Your task to perform on an android device: Open calendar and show me the fourth week of next month Image 0: 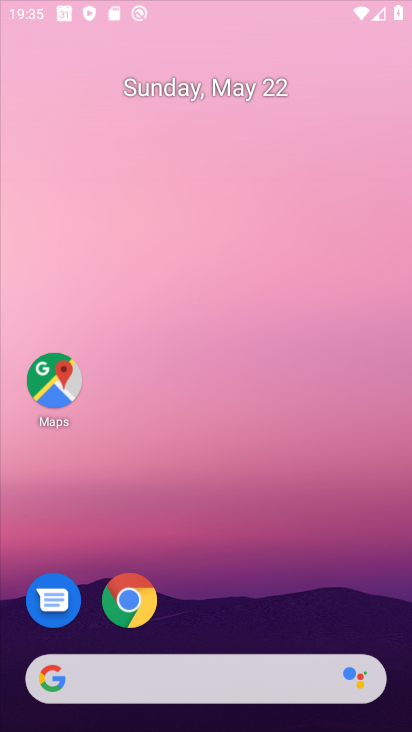
Step 0: click (216, 28)
Your task to perform on an android device: Open calendar and show me the fourth week of next month Image 1: 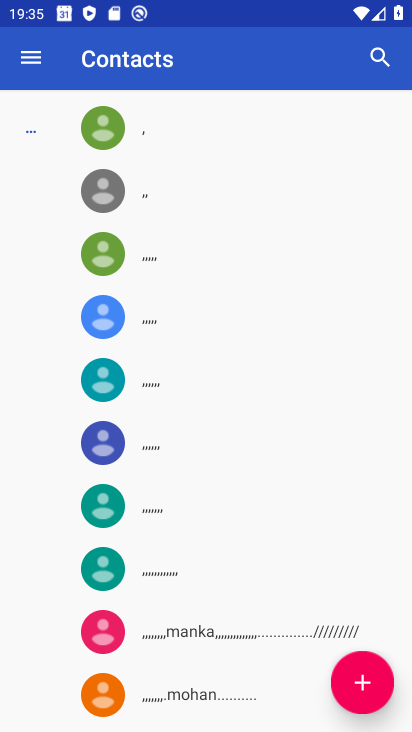
Step 1: press back button
Your task to perform on an android device: Open calendar and show me the fourth week of next month Image 2: 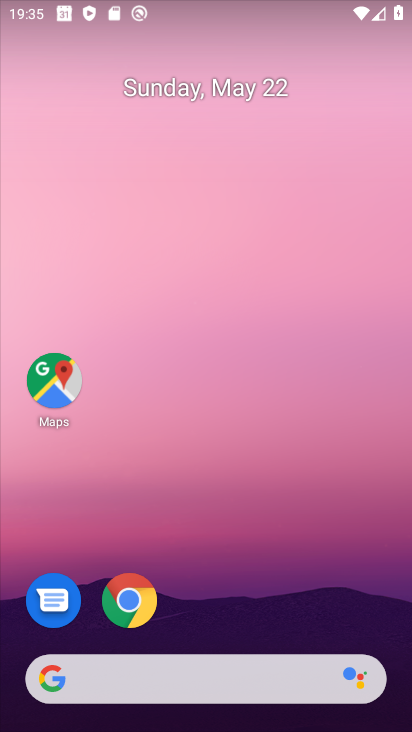
Step 2: drag from (235, 612) to (235, 22)
Your task to perform on an android device: Open calendar and show me the fourth week of next month Image 3: 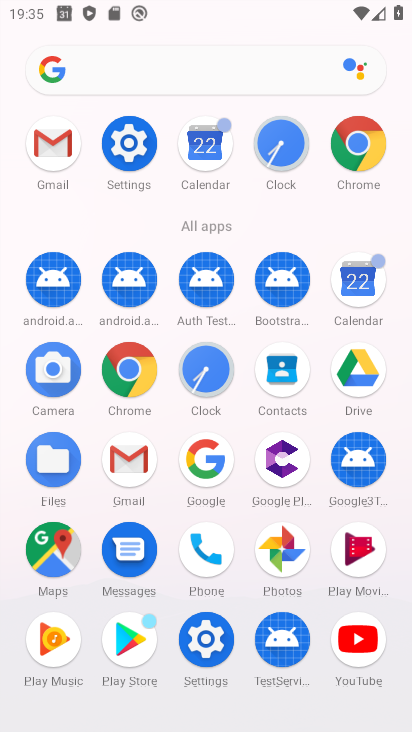
Step 3: click (364, 278)
Your task to perform on an android device: Open calendar and show me the fourth week of next month Image 4: 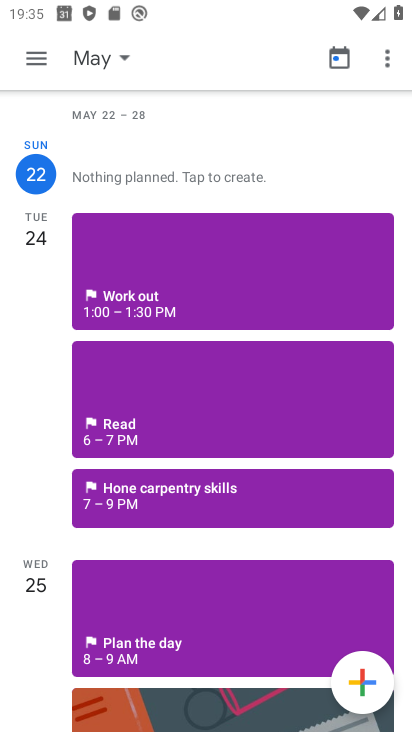
Step 4: click (100, 64)
Your task to perform on an android device: Open calendar and show me the fourth week of next month Image 5: 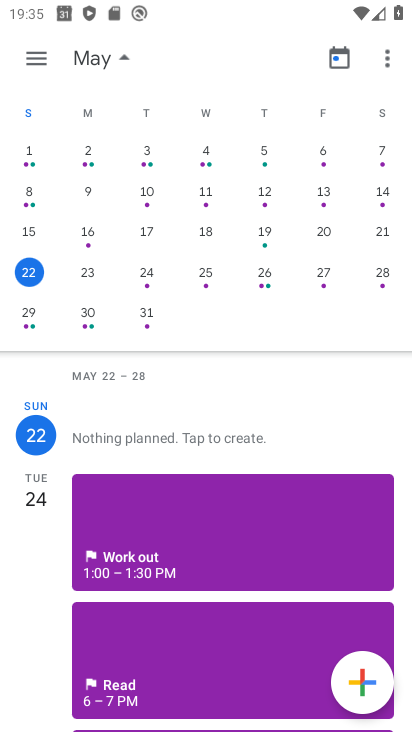
Step 5: drag from (375, 204) to (0, 125)
Your task to perform on an android device: Open calendar and show me the fourth week of next month Image 6: 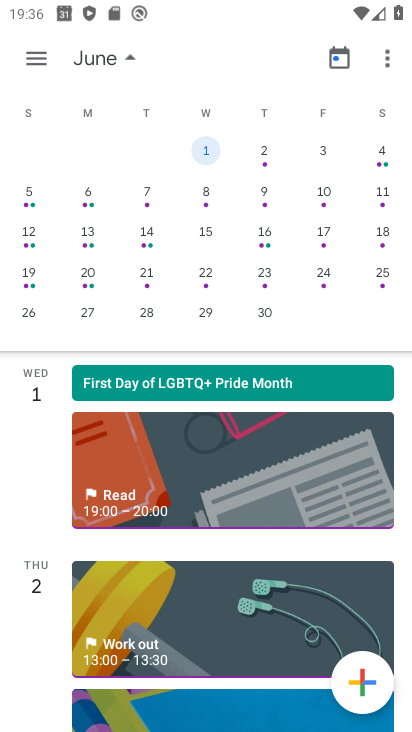
Step 6: click (28, 282)
Your task to perform on an android device: Open calendar and show me the fourth week of next month Image 7: 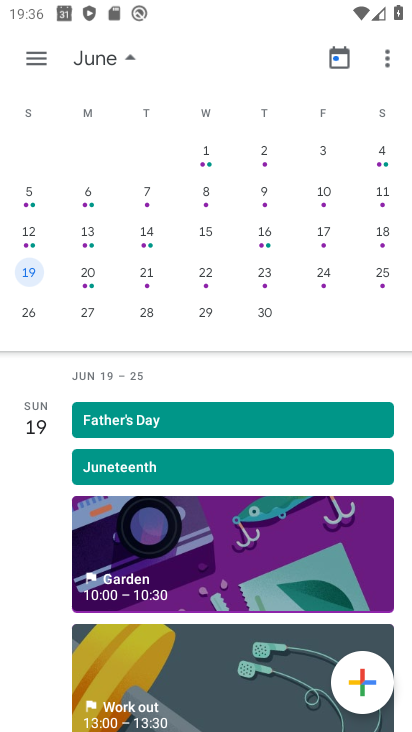
Step 7: click (41, 52)
Your task to perform on an android device: Open calendar and show me the fourth week of next month Image 8: 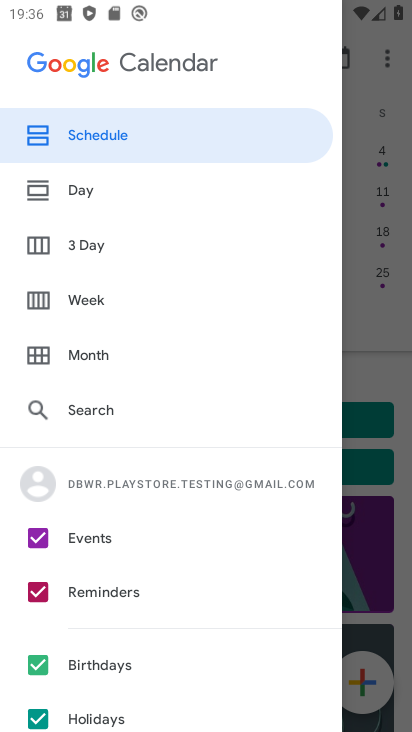
Step 8: click (100, 306)
Your task to perform on an android device: Open calendar and show me the fourth week of next month Image 9: 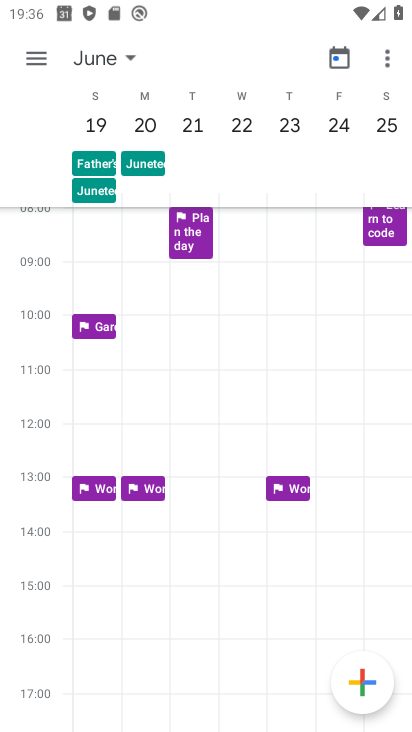
Step 9: task complete